Your task to perform on an android device: Search for a new skincare product Image 0: 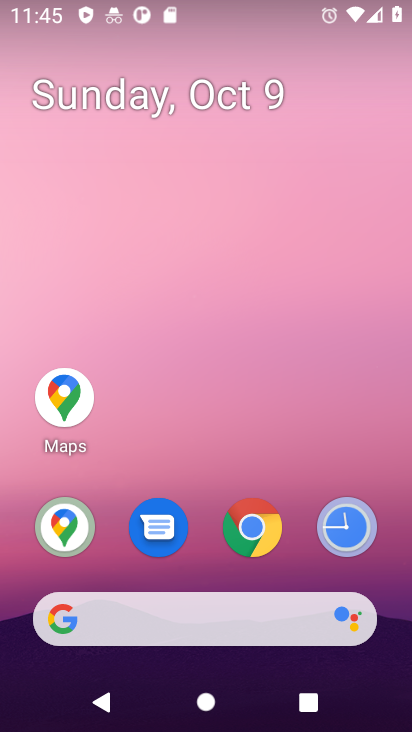
Step 0: click (260, 542)
Your task to perform on an android device: Search for a new skincare product Image 1: 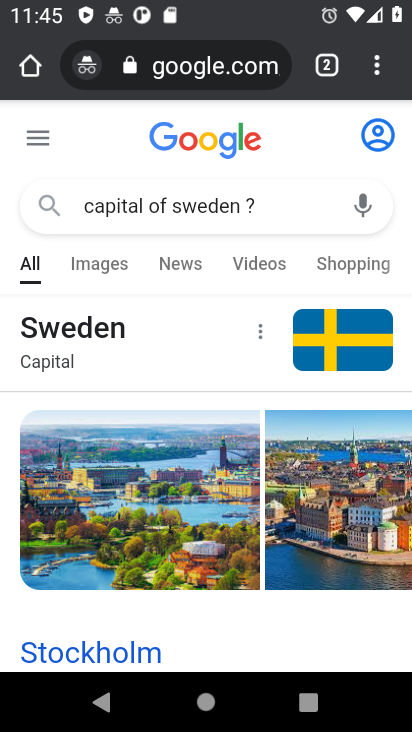
Step 1: click (197, 52)
Your task to perform on an android device: Search for a new skincare product Image 2: 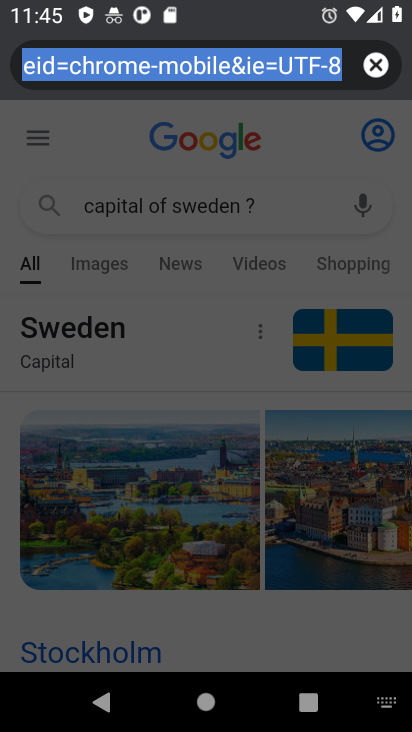
Step 2: type "a new skincare product"
Your task to perform on an android device: Search for a new skincare product Image 3: 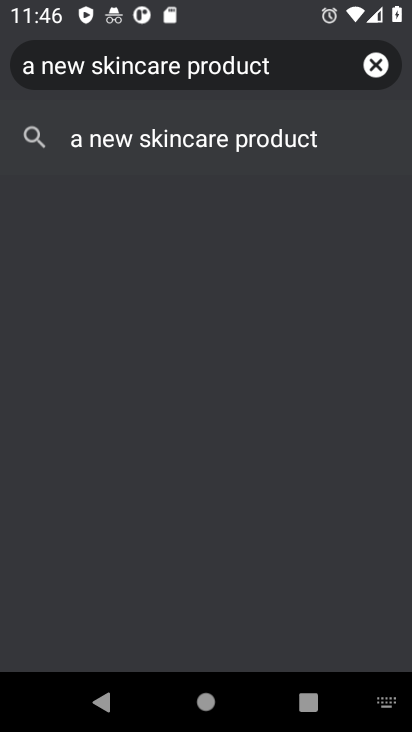
Step 3: click (209, 141)
Your task to perform on an android device: Search for a new skincare product Image 4: 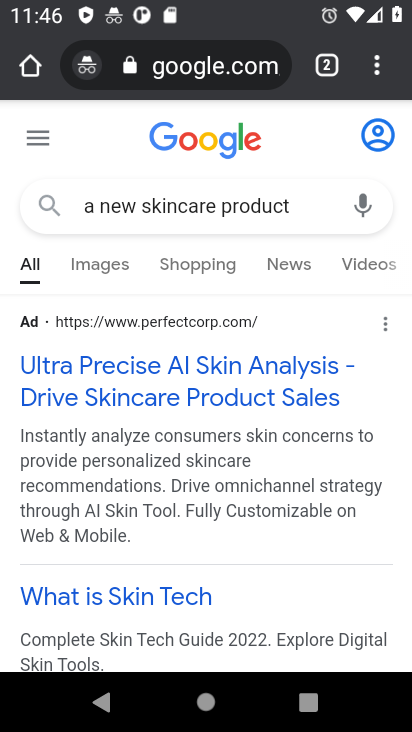
Step 4: click (294, 386)
Your task to perform on an android device: Search for a new skincare product Image 5: 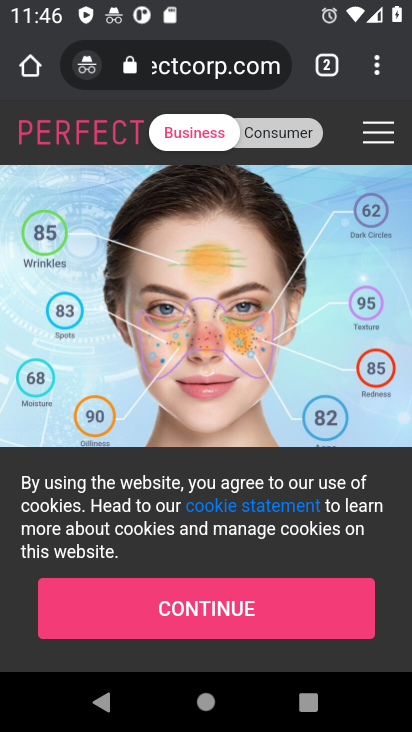
Step 5: click (288, 600)
Your task to perform on an android device: Search for a new skincare product Image 6: 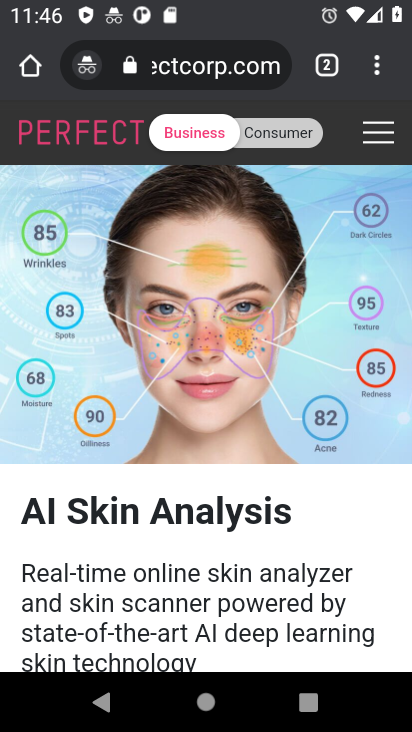
Step 6: task complete